Your task to perform on an android device: Search for a nice rug on Crate & Barrel Image 0: 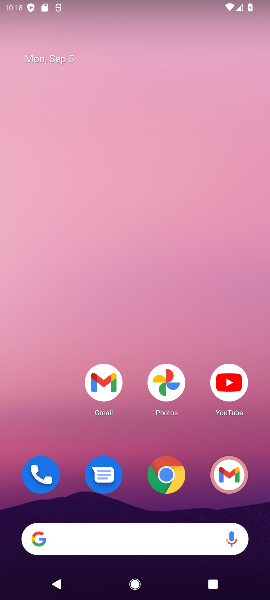
Step 0: task complete